Your task to perform on an android device: open app "Pandora - Music & Podcasts" (install if not already installed) Image 0: 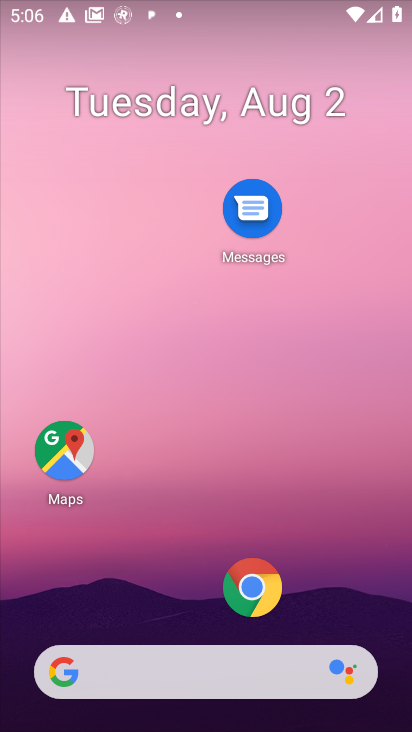
Step 0: drag from (206, 603) to (173, 11)
Your task to perform on an android device: open app "Pandora - Music & Podcasts" (install if not already installed) Image 1: 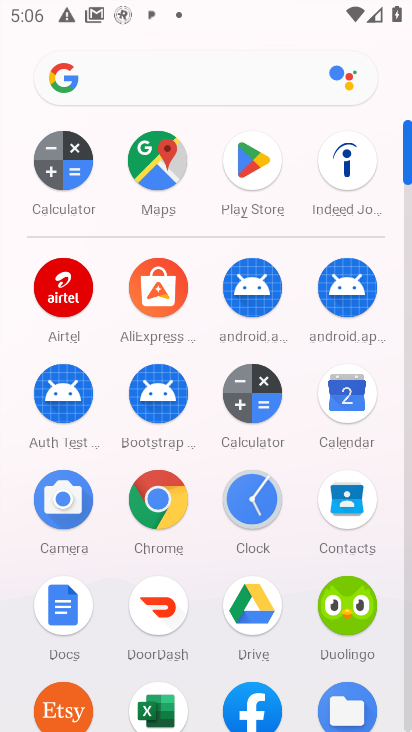
Step 1: click (254, 189)
Your task to perform on an android device: open app "Pandora - Music & Podcasts" (install if not already installed) Image 2: 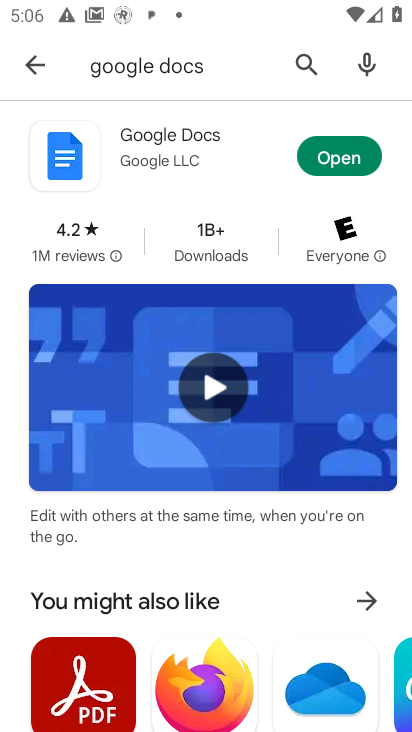
Step 2: click (306, 63)
Your task to perform on an android device: open app "Pandora - Music & Podcasts" (install if not already installed) Image 3: 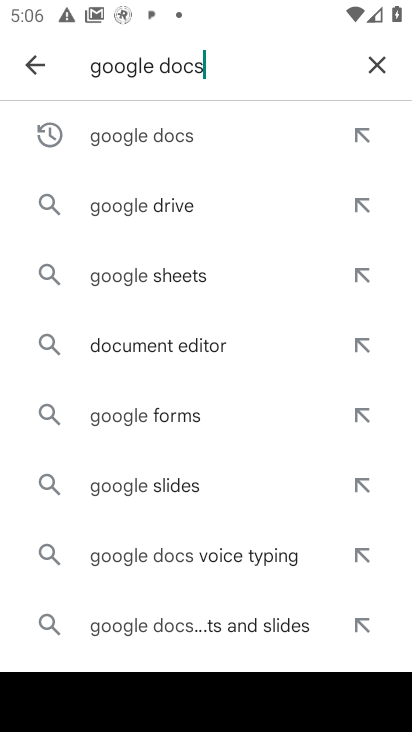
Step 3: click (370, 51)
Your task to perform on an android device: open app "Pandora - Music & Podcasts" (install if not already installed) Image 4: 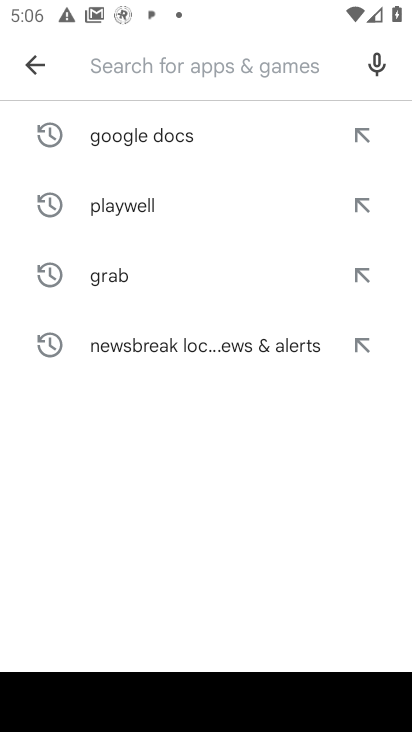
Step 4: type "Pandora - Music & Podcasts"
Your task to perform on an android device: open app "Pandora - Music & Podcasts" (install if not already installed) Image 5: 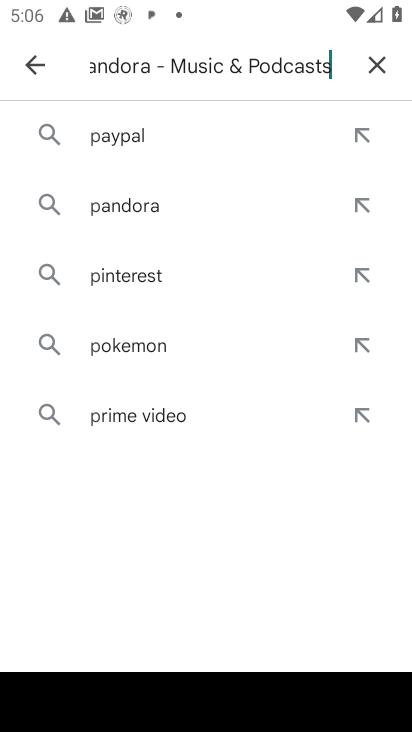
Step 5: type ""
Your task to perform on an android device: open app "Pandora - Music & Podcasts" (install if not already installed) Image 6: 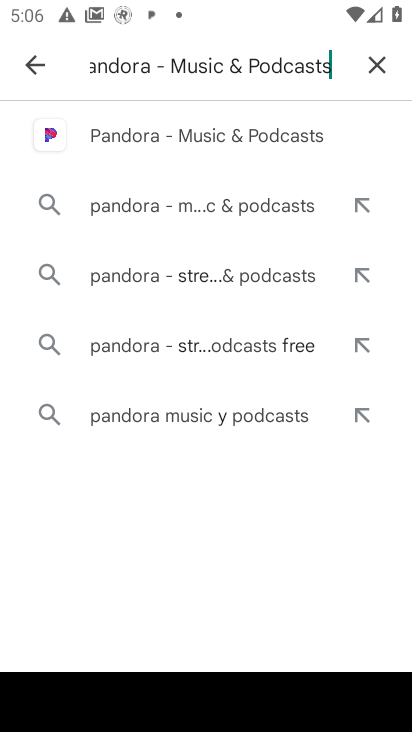
Step 6: click (169, 147)
Your task to perform on an android device: open app "Pandora - Music & Podcasts" (install if not already installed) Image 7: 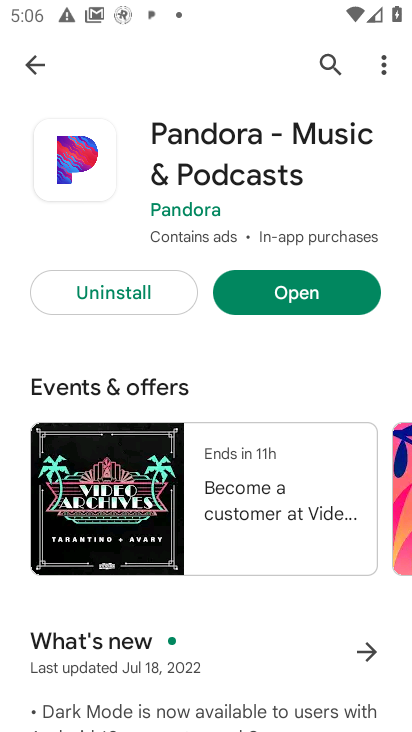
Step 7: click (310, 307)
Your task to perform on an android device: open app "Pandora - Music & Podcasts" (install if not already installed) Image 8: 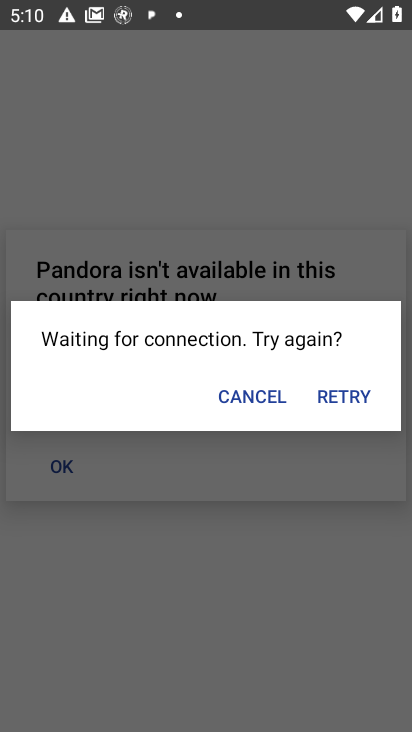
Step 8: task complete